Your task to perform on an android device: open the mobile data screen to see how much data has been used Image 0: 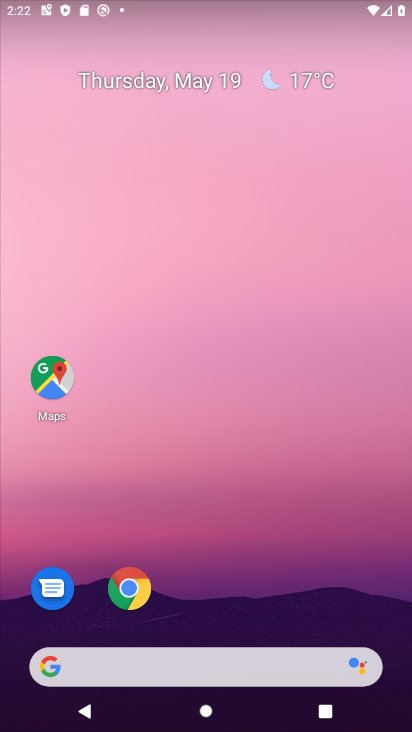
Step 0: drag from (313, 530) to (205, 3)
Your task to perform on an android device: open the mobile data screen to see how much data has been used Image 1: 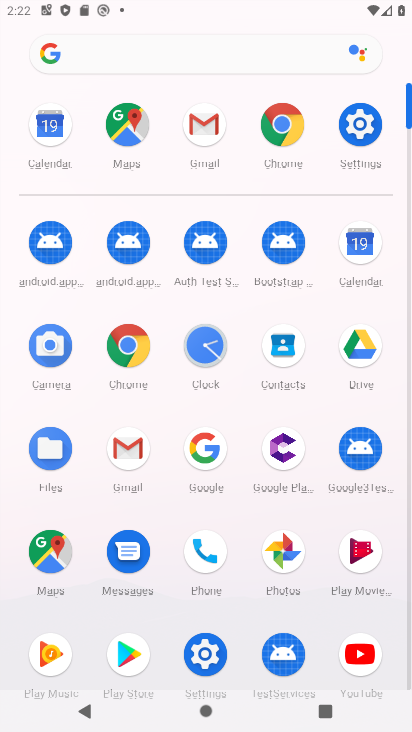
Step 1: click (357, 119)
Your task to perform on an android device: open the mobile data screen to see how much data has been used Image 2: 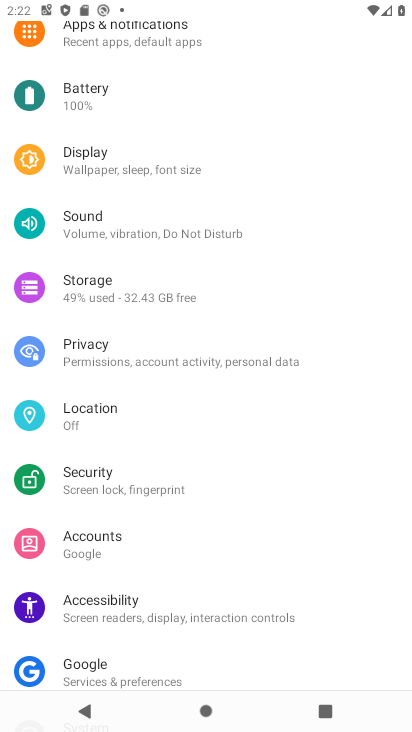
Step 2: drag from (167, 124) to (172, 611)
Your task to perform on an android device: open the mobile data screen to see how much data has been used Image 3: 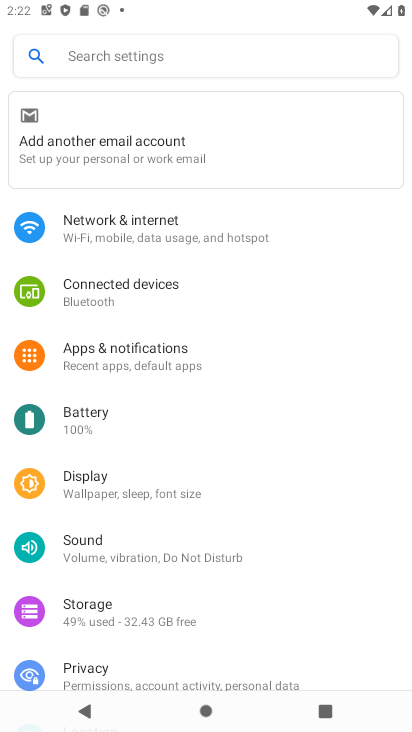
Step 3: click (153, 226)
Your task to perform on an android device: open the mobile data screen to see how much data has been used Image 4: 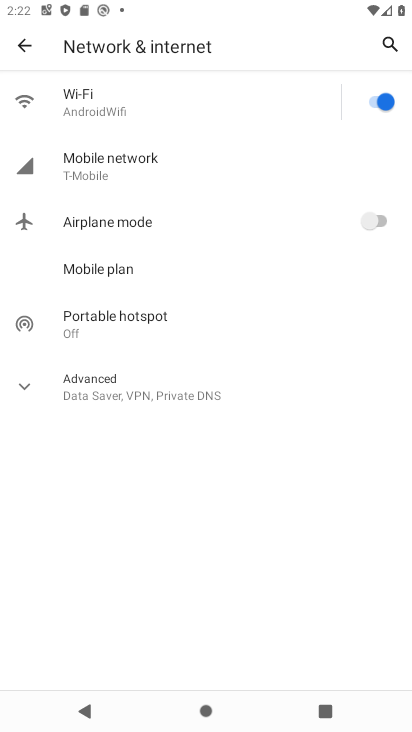
Step 4: click (74, 164)
Your task to perform on an android device: open the mobile data screen to see how much data has been used Image 5: 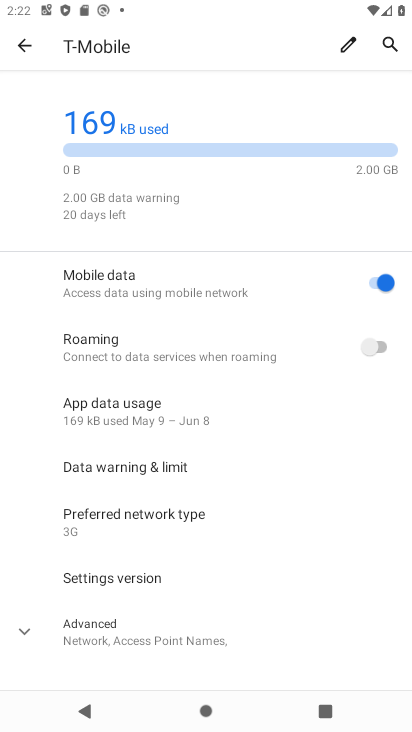
Step 5: task complete